Your task to perform on an android device: Add "apple airpods pro" to the cart on target.com, then select checkout. Image 0: 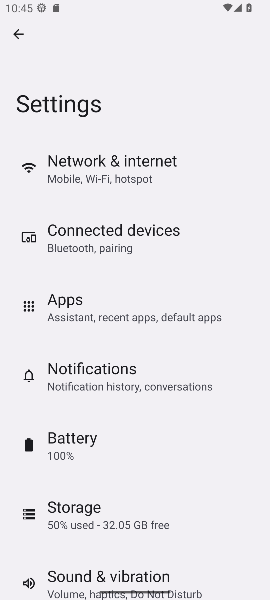
Step 0: press home button
Your task to perform on an android device: Add "apple airpods pro" to the cart on target.com, then select checkout. Image 1: 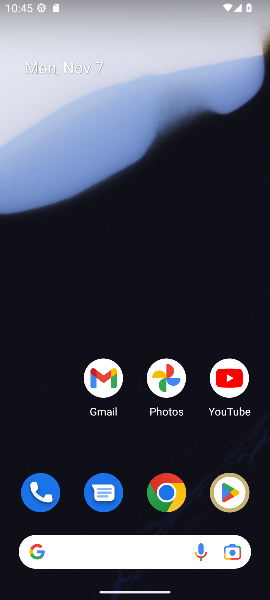
Step 1: drag from (130, 463) to (93, 56)
Your task to perform on an android device: Add "apple airpods pro" to the cart on target.com, then select checkout. Image 2: 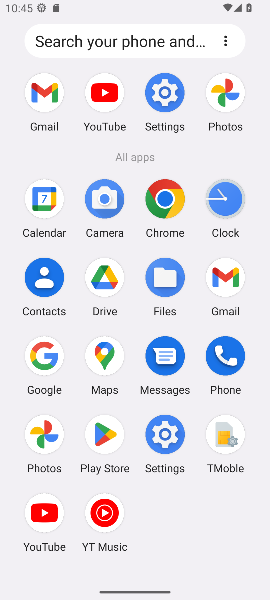
Step 2: click (166, 203)
Your task to perform on an android device: Add "apple airpods pro" to the cart on target.com, then select checkout. Image 3: 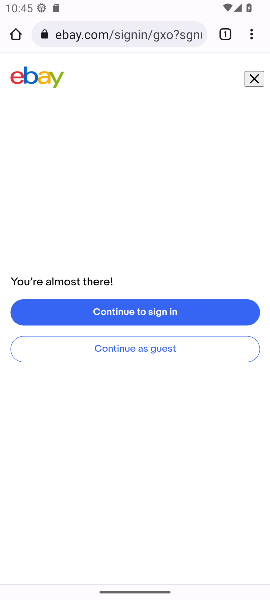
Step 3: click (119, 37)
Your task to perform on an android device: Add "apple airpods pro" to the cart on target.com, then select checkout. Image 4: 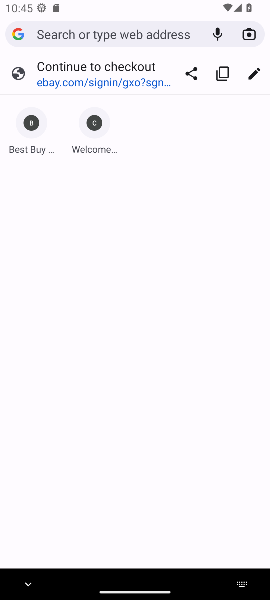
Step 4: type "target.com"
Your task to perform on an android device: Add "apple airpods pro" to the cart on target.com, then select checkout. Image 5: 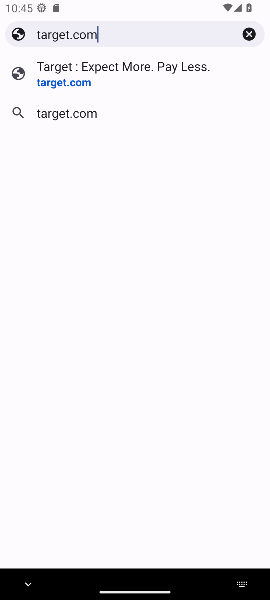
Step 5: press enter
Your task to perform on an android device: Add "apple airpods pro" to the cart on target.com, then select checkout. Image 6: 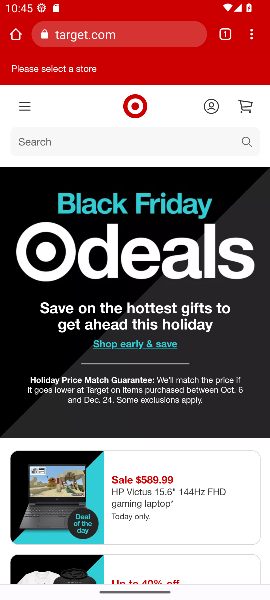
Step 6: click (105, 146)
Your task to perform on an android device: Add "apple airpods pro" to the cart on target.com, then select checkout. Image 7: 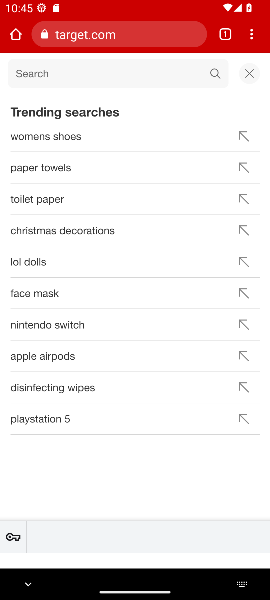
Step 7: type "apple airpods pro"
Your task to perform on an android device: Add "apple airpods pro" to the cart on target.com, then select checkout. Image 8: 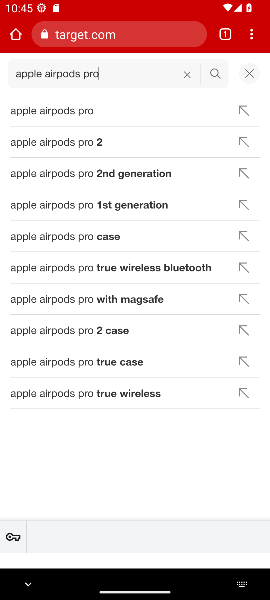
Step 8: press enter
Your task to perform on an android device: Add "apple airpods pro" to the cart on target.com, then select checkout. Image 9: 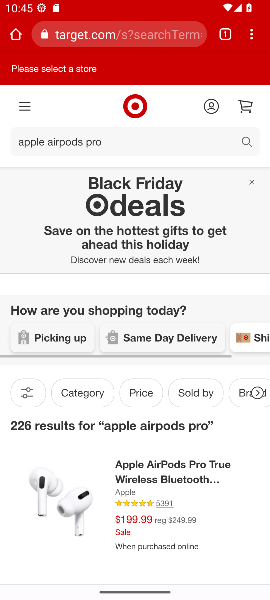
Step 9: drag from (226, 489) to (196, 246)
Your task to perform on an android device: Add "apple airpods pro" to the cart on target.com, then select checkout. Image 10: 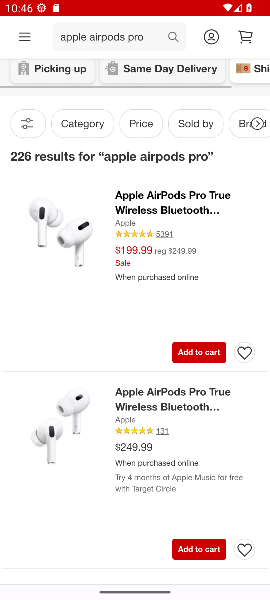
Step 10: click (185, 351)
Your task to perform on an android device: Add "apple airpods pro" to the cart on target.com, then select checkout. Image 11: 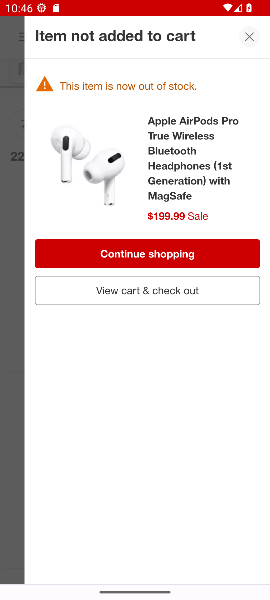
Step 11: click (165, 296)
Your task to perform on an android device: Add "apple airpods pro" to the cart on target.com, then select checkout. Image 12: 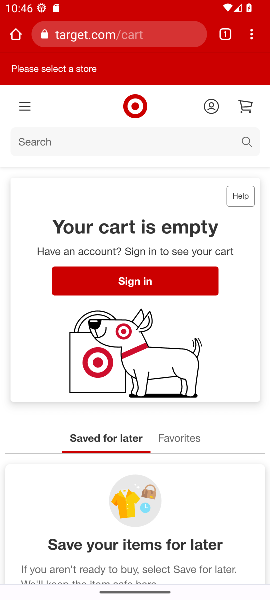
Step 12: task complete